Your task to perform on an android device: visit the assistant section in the google photos Image 0: 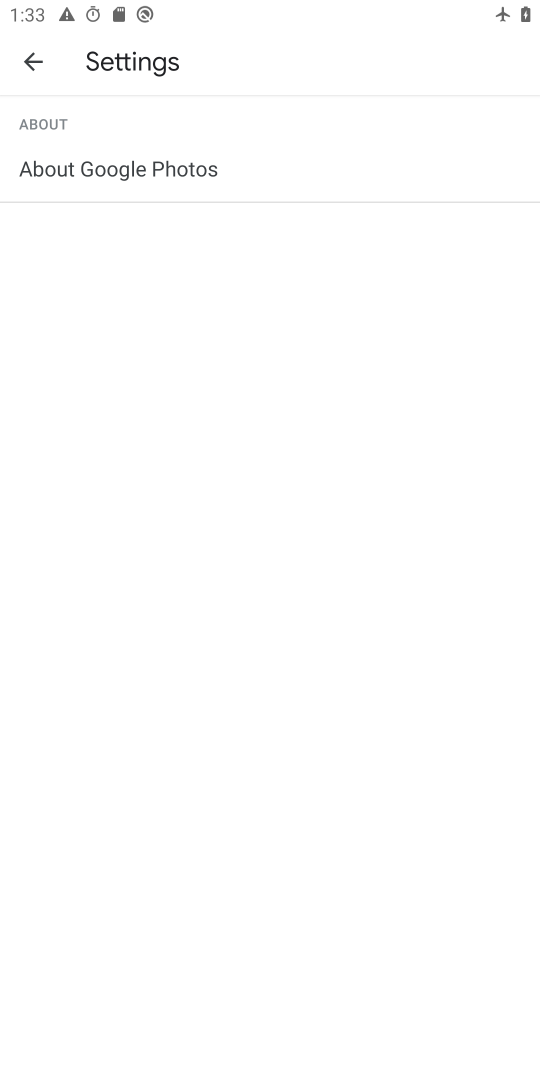
Step 0: press home button
Your task to perform on an android device: visit the assistant section in the google photos Image 1: 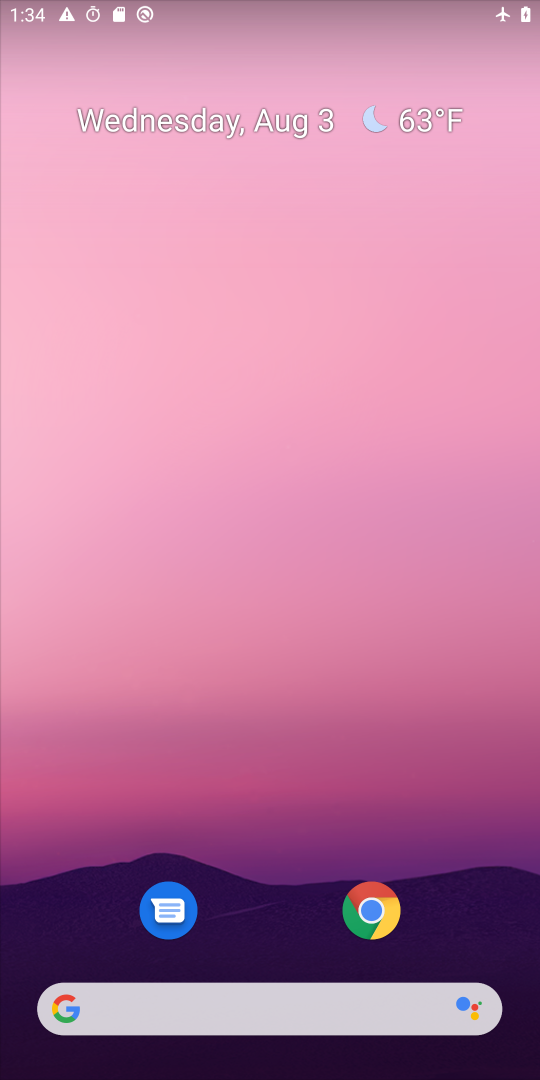
Step 1: drag from (333, 567) to (257, 7)
Your task to perform on an android device: visit the assistant section in the google photos Image 2: 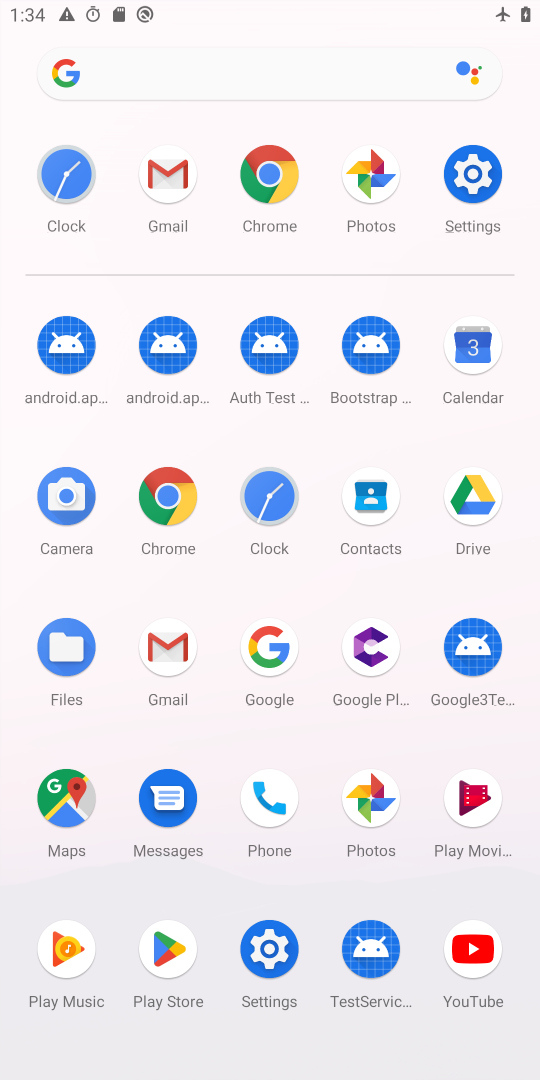
Step 2: click (376, 794)
Your task to perform on an android device: visit the assistant section in the google photos Image 3: 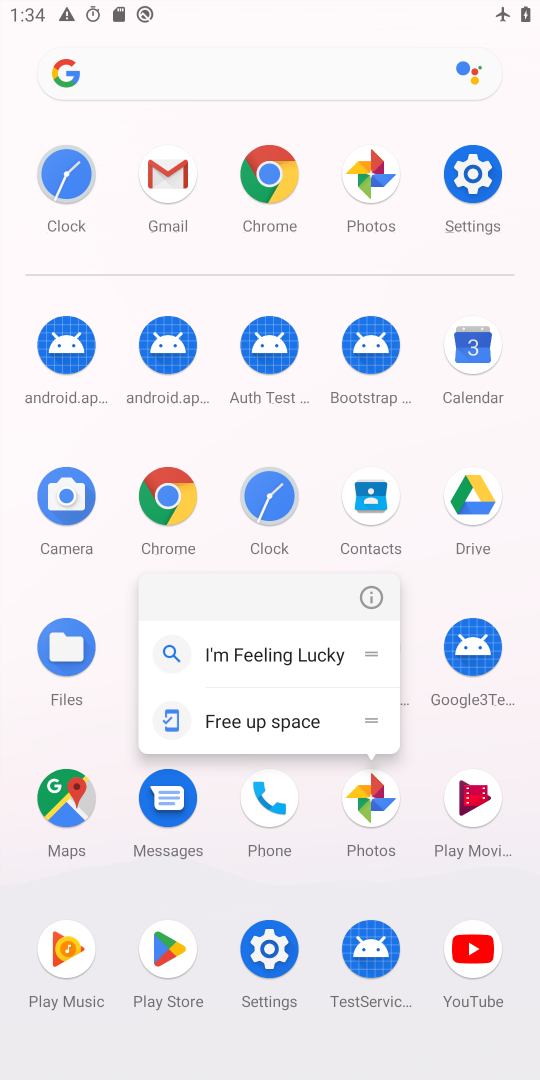
Step 3: click (387, 817)
Your task to perform on an android device: visit the assistant section in the google photos Image 4: 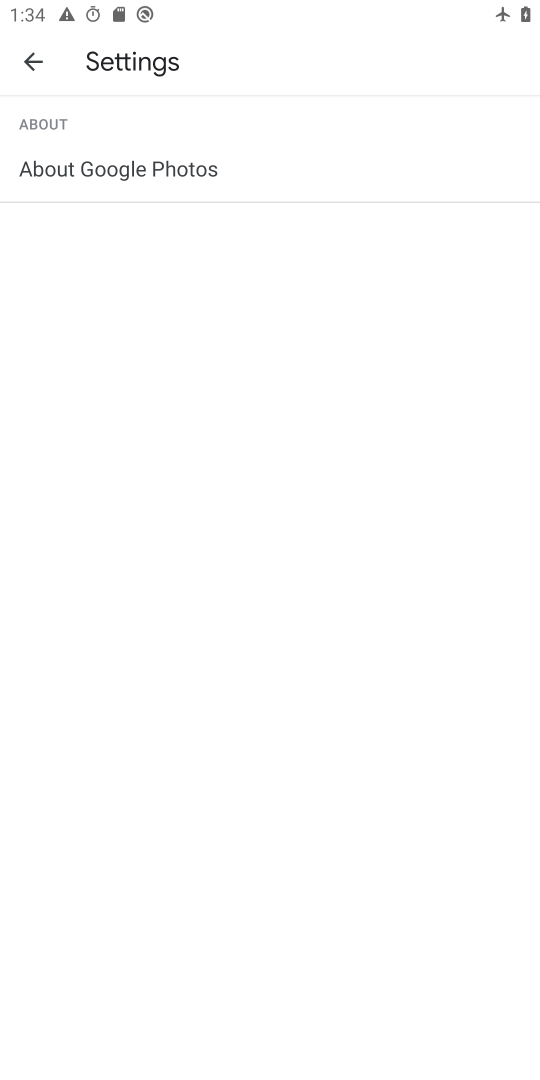
Step 4: task complete